Your task to perform on an android device: Set the phone to "Do not disturb". Image 0: 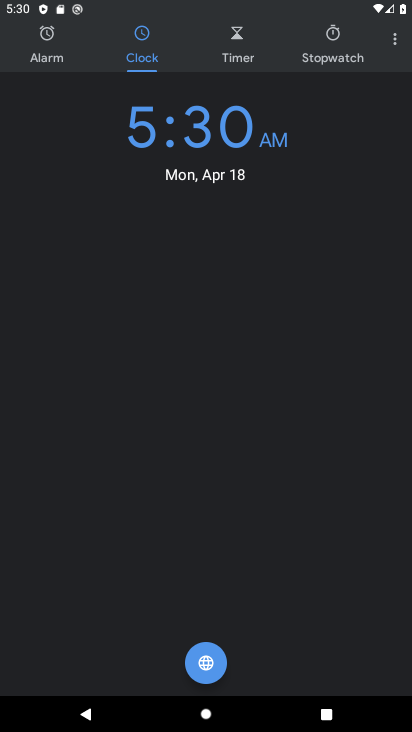
Step 0: press back button
Your task to perform on an android device: Set the phone to "Do not disturb". Image 1: 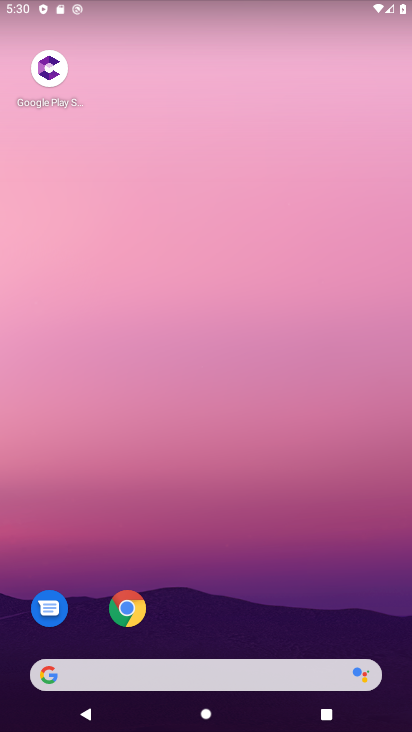
Step 1: drag from (338, 584) to (240, 36)
Your task to perform on an android device: Set the phone to "Do not disturb". Image 2: 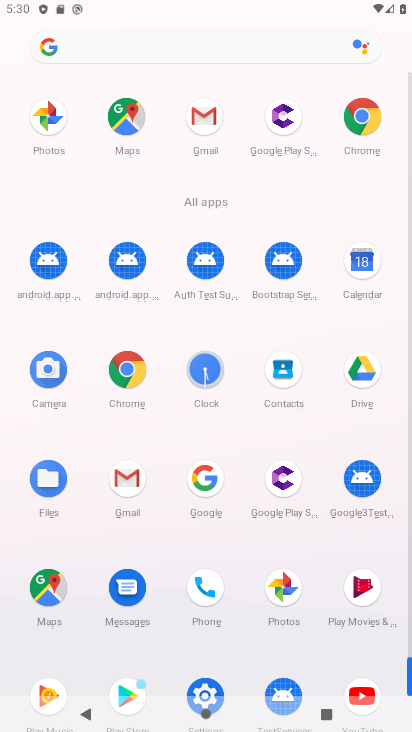
Step 2: drag from (4, 525) to (25, 215)
Your task to perform on an android device: Set the phone to "Do not disturb". Image 3: 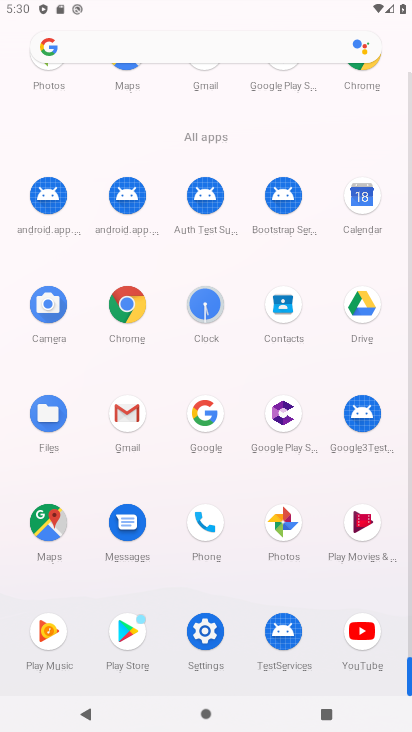
Step 3: click (206, 633)
Your task to perform on an android device: Set the phone to "Do not disturb". Image 4: 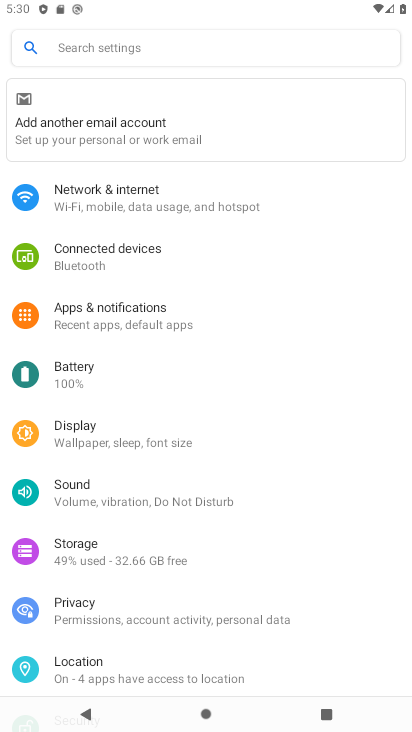
Step 4: click (118, 489)
Your task to perform on an android device: Set the phone to "Do not disturb". Image 5: 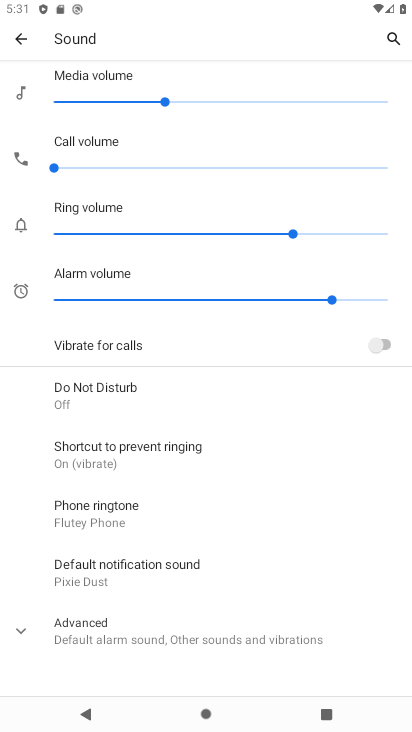
Step 5: click (125, 400)
Your task to perform on an android device: Set the phone to "Do not disturb". Image 6: 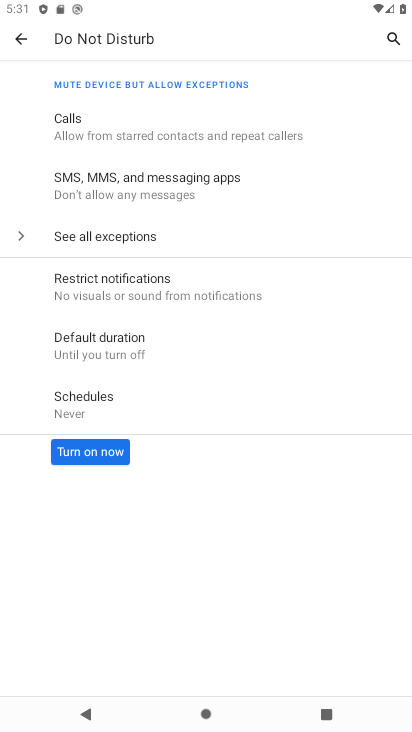
Step 6: click (107, 445)
Your task to perform on an android device: Set the phone to "Do not disturb". Image 7: 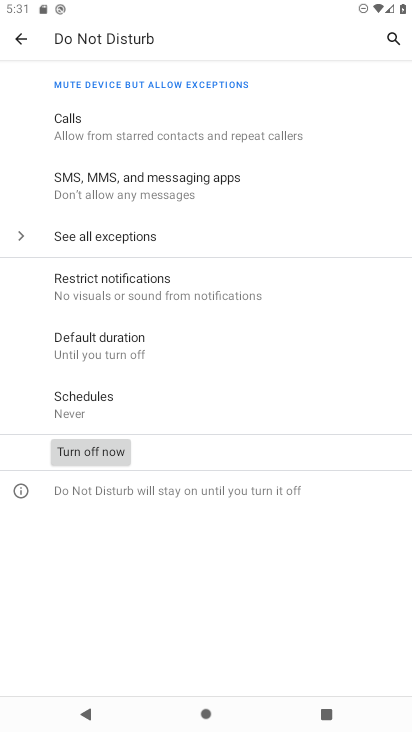
Step 7: task complete